Your task to perform on an android device: Open Google Maps Image 0: 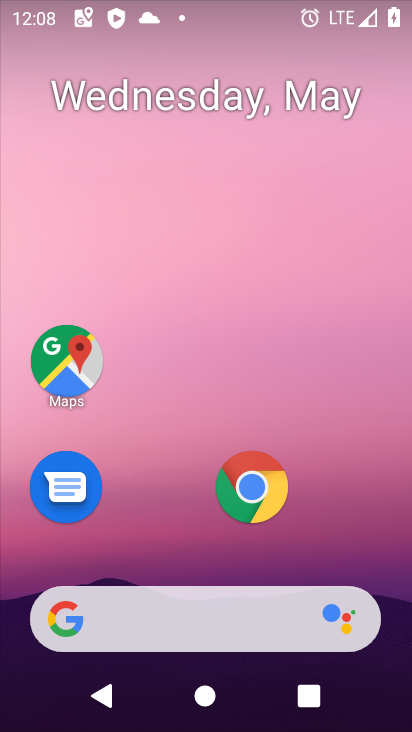
Step 0: click (258, 117)
Your task to perform on an android device: Open Google Maps Image 1: 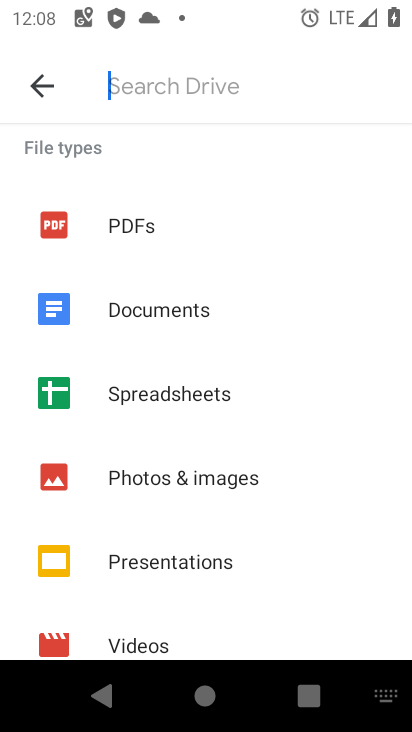
Step 1: press home button
Your task to perform on an android device: Open Google Maps Image 2: 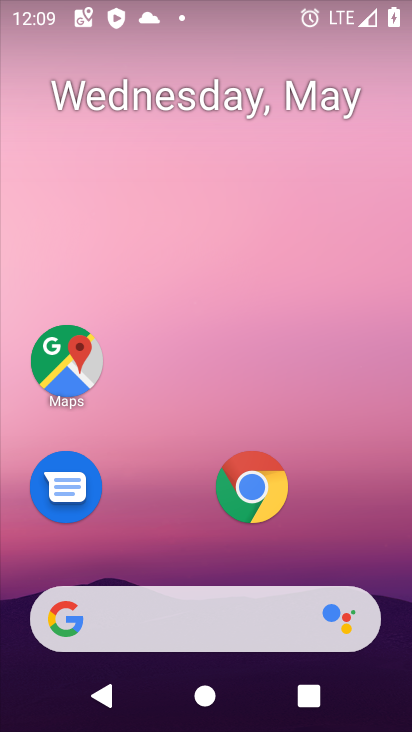
Step 2: drag from (182, 523) to (361, 63)
Your task to perform on an android device: Open Google Maps Image 3: 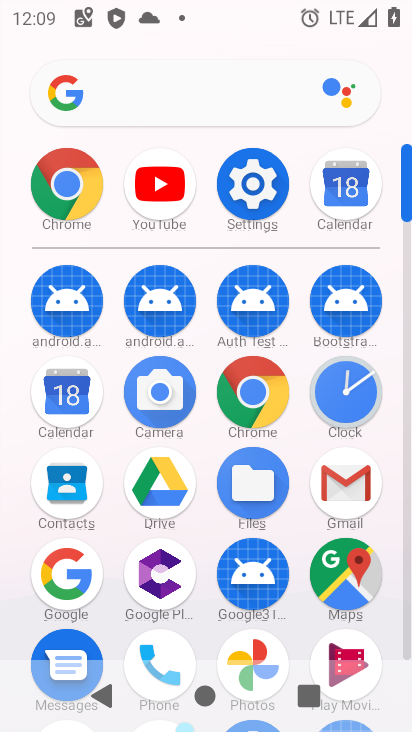
Step 3: click (52, 545)
Your task to perform on an android device: Open Google Maps Image 4: 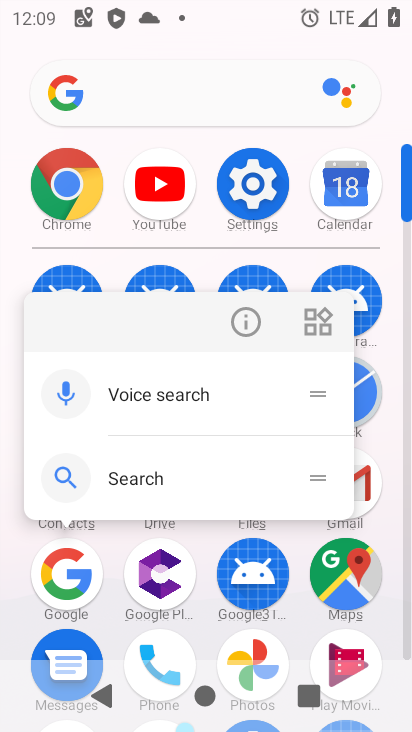
Step 4: click (246, 326)
Your task to perform on an android device: Open Google Maps Image 5: 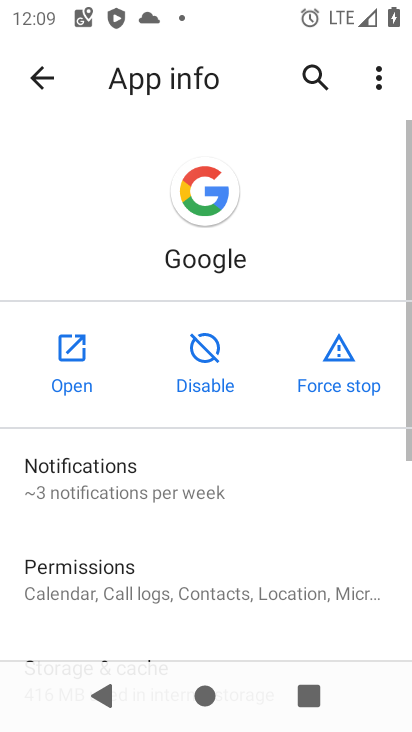
Step 5: click (69, 354)
Your task to perform on an android device: Open Google Maps Image 6: 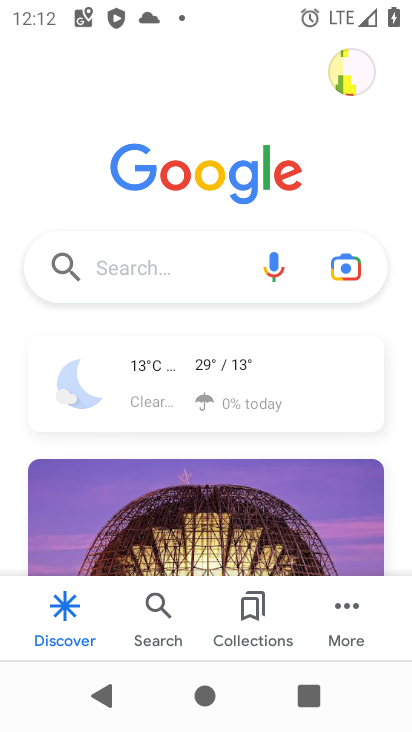
Step 6: press home button
Your task to perform on an android device: Open Google Maps Image 7: 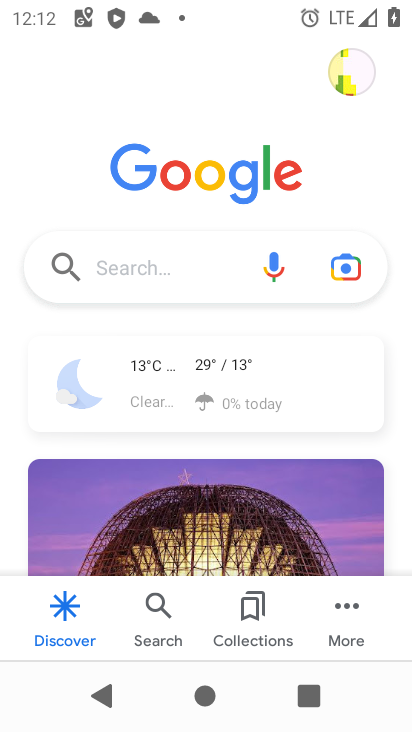
Step 7: drag from (238, 501) to (301, 0)
Your task to perform on an android device: Open Google Maps Image 8: 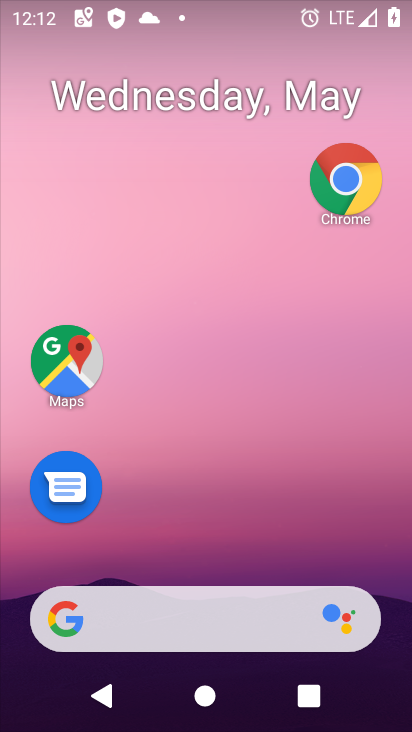
Step 8: click (57, 339)
Your task to perform on an android device: Open Google Maps Image 9: 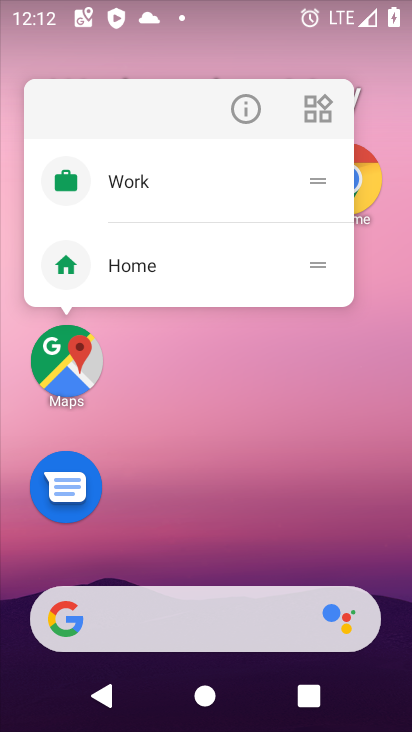
Step 9: click (255, 99)
Your task to perform on an android device: Open Google Maps Image 10: 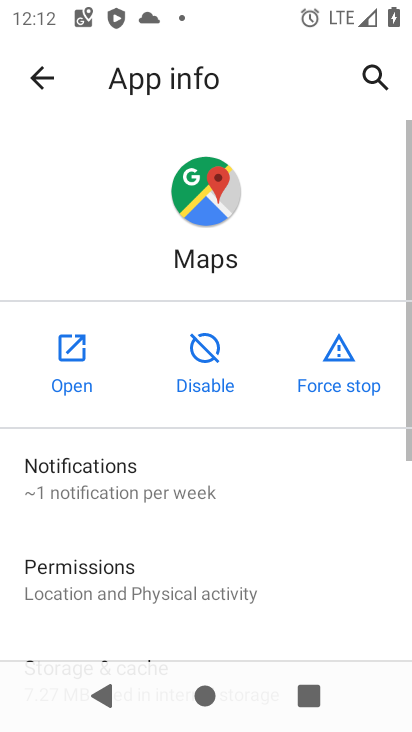
Step 10: click (83, 359)
Your task to perform on an android device: Open Google Maps Image 11: 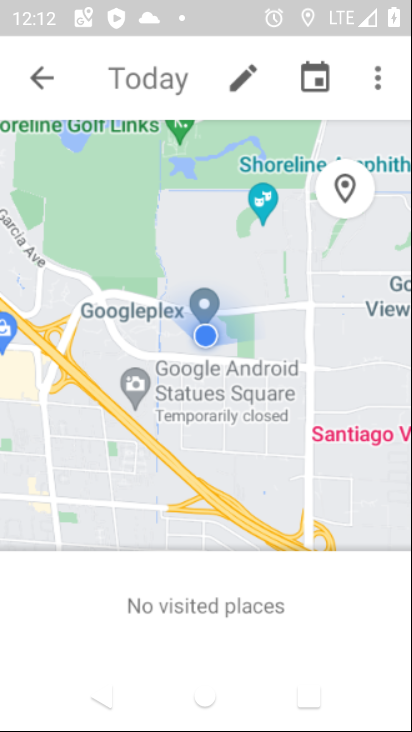
Step 11: task complete